Your task to perform on an android device: add a label to a message in the gmail app Image 0: 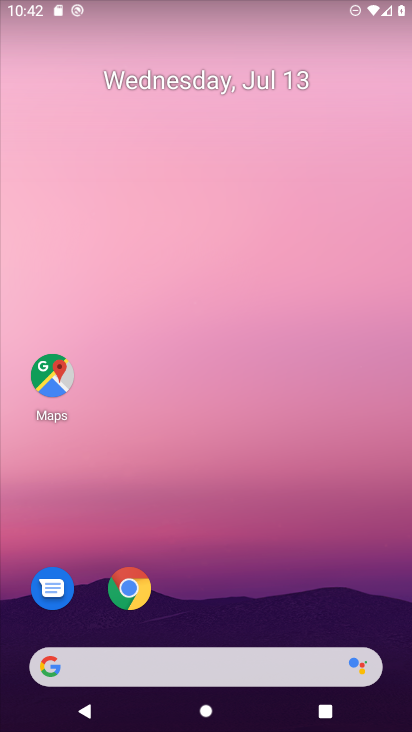
Step 0: drag from (206, 637) to (208, 25)
Your task to perform on an android device: add a label to a message in the gmail app Image 1: 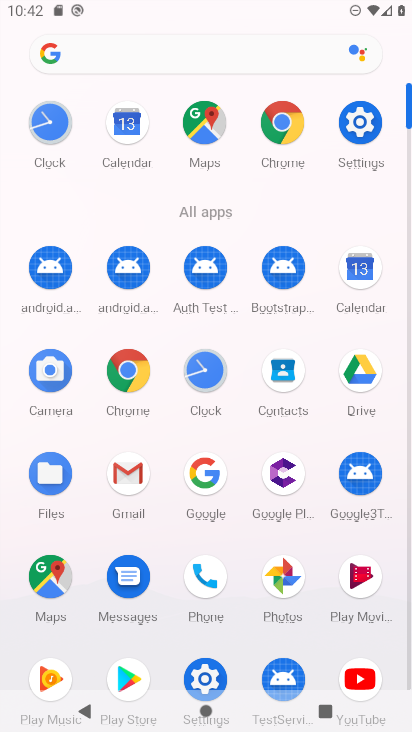
Step 1: click (135, 489)
Your task to perform on an android device: add a label to a message in the gmail app Image 2: 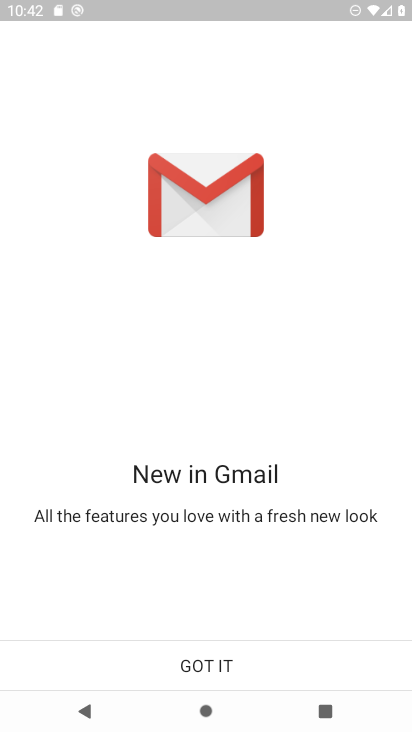
Step 2: click (263, 673)
Your task to perform on an android device: add a label to a message in the gmail app Image 3: 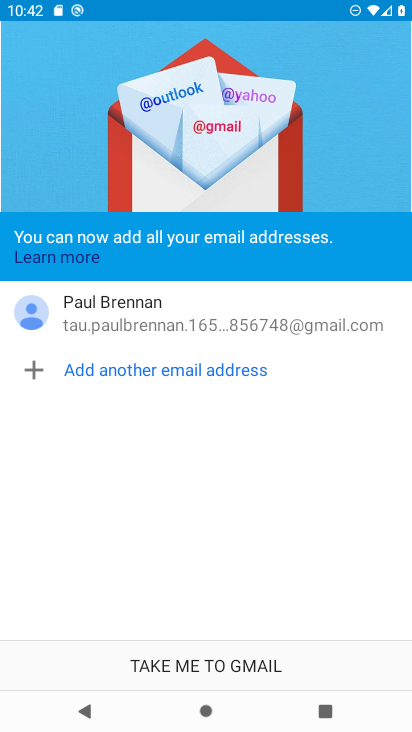
Step 3: click (236, 658)
Your task to perform on an android device: add a label to a message in the gmail app Image 4: 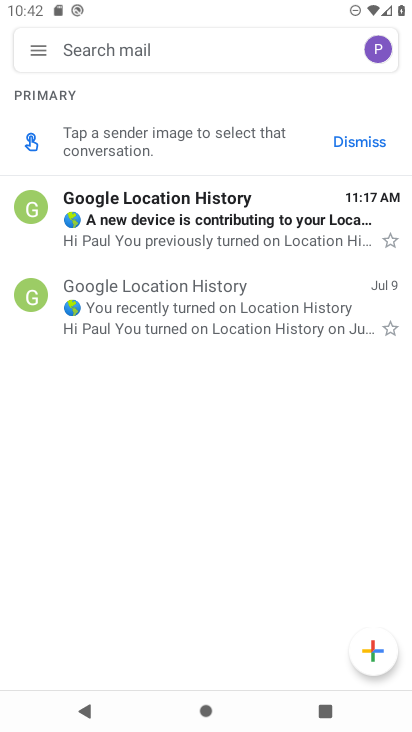
Step 4: click (35, 304)
Your task to perform on an android device: add a label to a message in the gmail app Image 5: 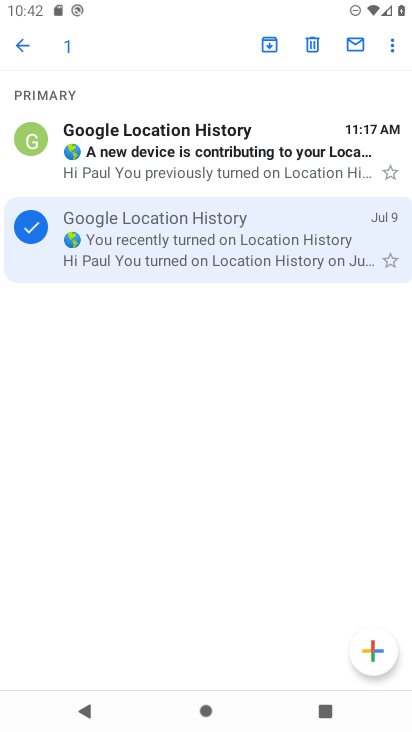
Step 5: click (392, 46)
Your task to perform on an android device: add a label to a message in the gmail app Image 6: 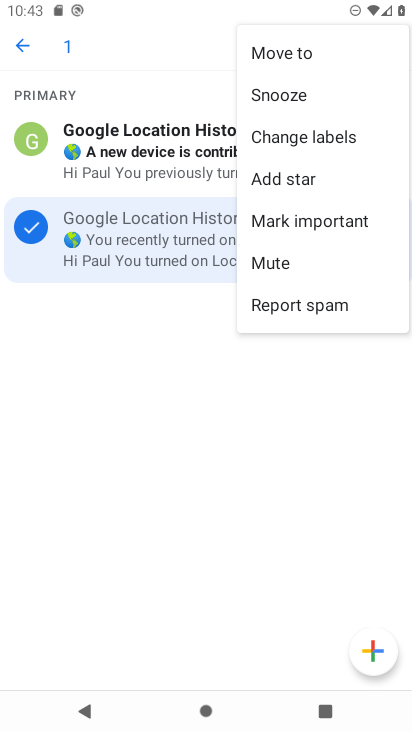
Step 6: click (316, 132)
Your task to perform on an android device: add a label to a message in the gmail app Image 7: 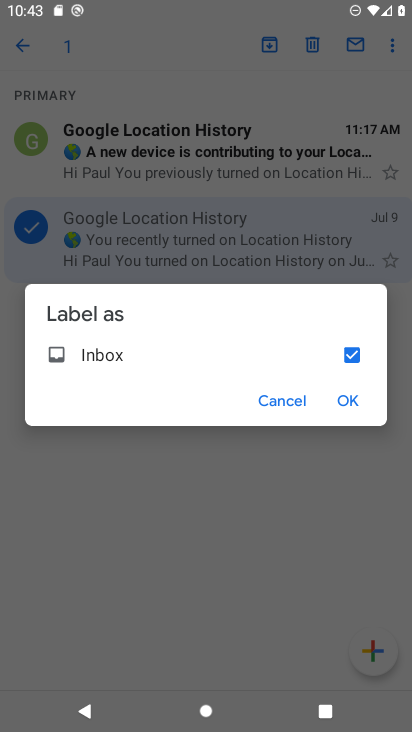
Step 7: click (340, 354)
Your task to perform on an android device: add a label to a message in the gmail app Image 8: 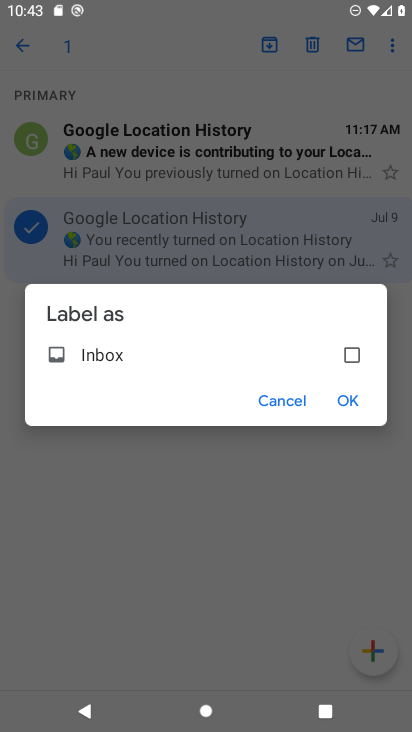
Step 8: click (328, 393)
Your task to perform on an android device: add a label to a message in the gmail app Image 9: 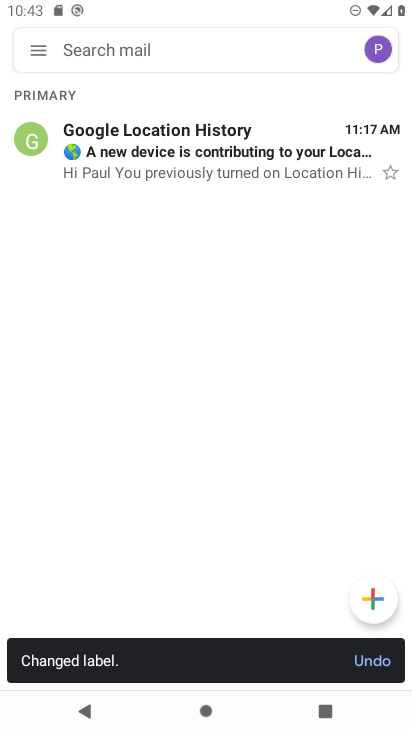
Step 9: task complete